Your task to perform on an android device: Go to sound settings Image 0: 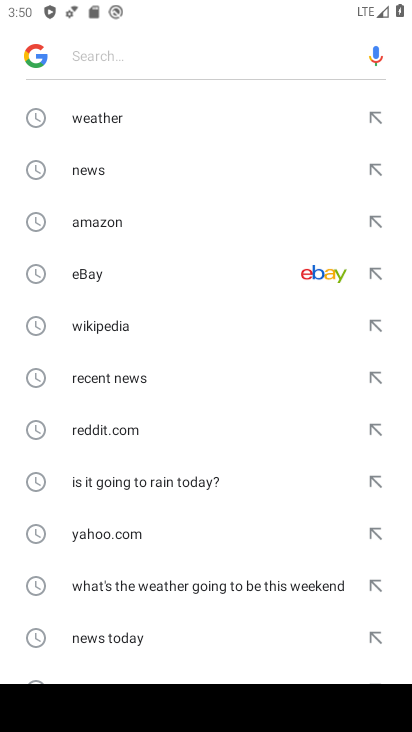
Step 0: press home button
Your task to perform on an android device: Go to sound settings Image 1: 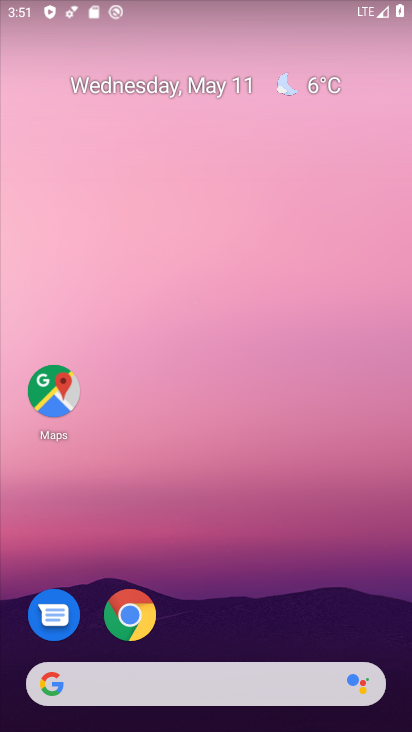
Step 1: drag from (270, 568) to (234, 275)
Your task to perform on an android device: Go to sound settings Image 2: 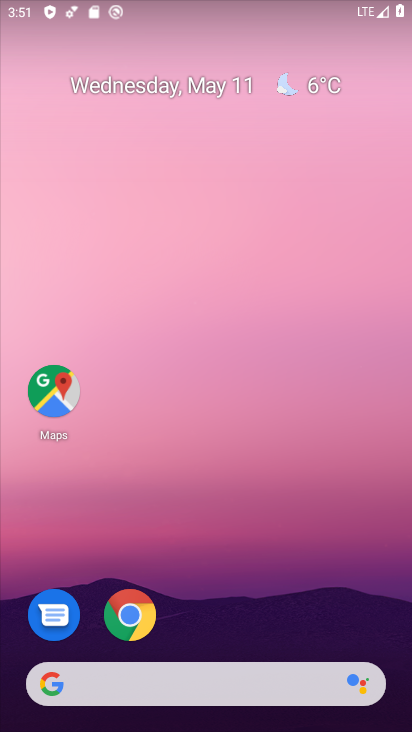
Step 2: drag from (276, 655) to (201, 130)
Your task to perform on an android device: Go to sound settings Image 3: 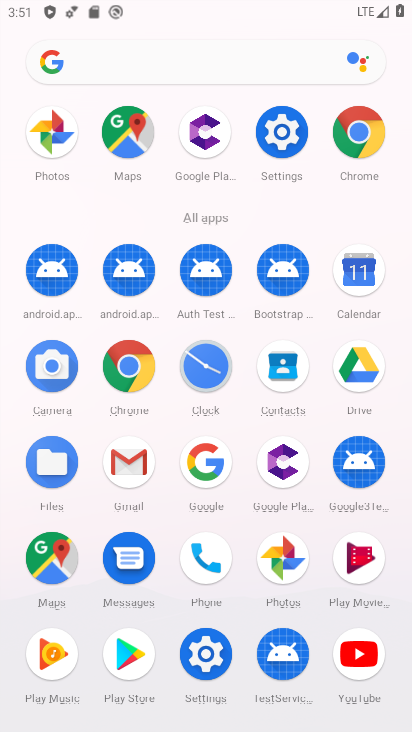
Step 3: click (276, 143)
Your task to perform on an android device: Go to sound settings Image 4: 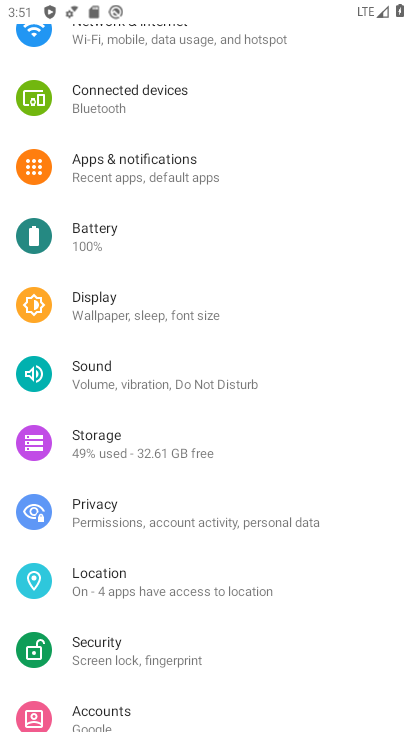
Step 4: click (101, 367)
Your task to perform on an android device: Go to sound settings Image 5: 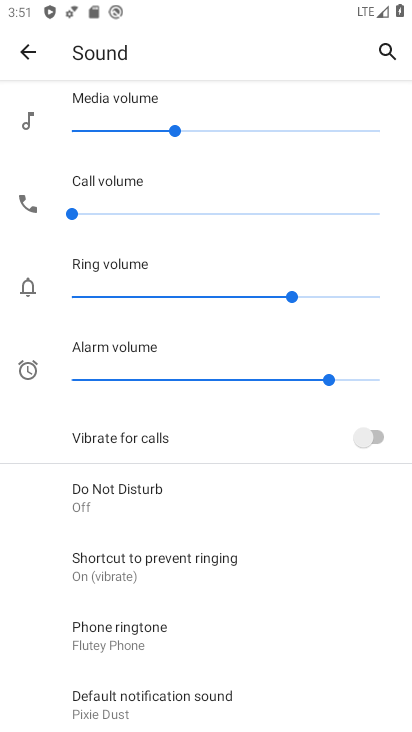
Step 5: task complete